Your task to perform on an android device: change the clock display to analog Image 0: 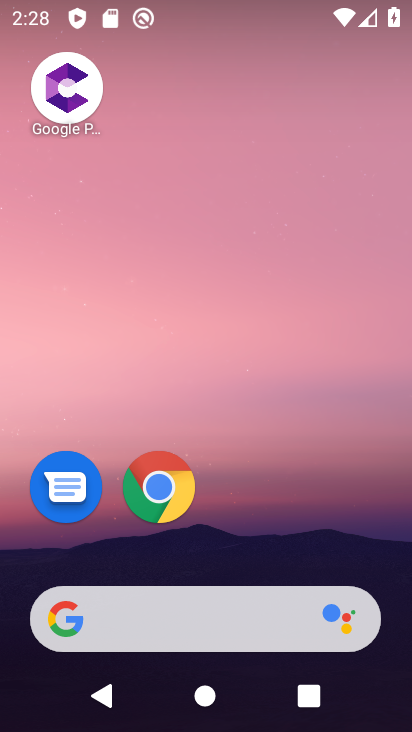
Step 0: drag from (386, 562) to (293, 145)
Your task to perform on an android device: change the clock display to analog Image 1: 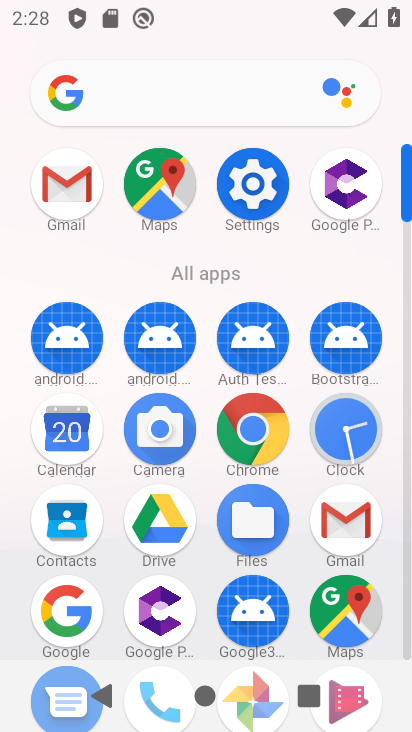
Step 1: click (355, 445)
Your task to perform on an android device: change the clock display to analog Image 2: 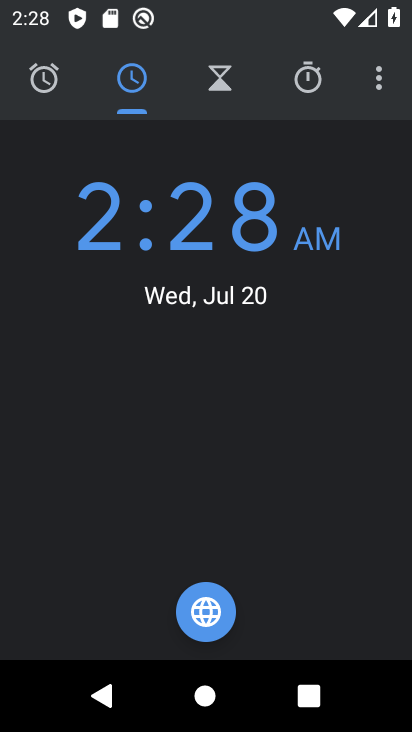
Step 2: click (378, 93)
Your task to perform on an android device: change the clock display to analog Image 3: 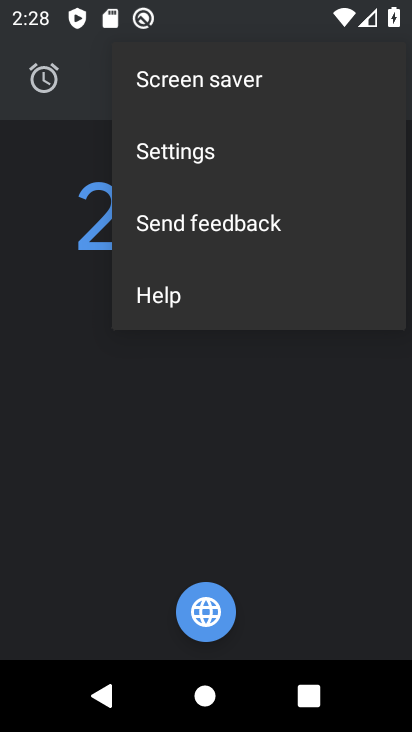
Step 3: click (261, 150)
Your task to perform on an android device: change the clock display to analog Image 4: 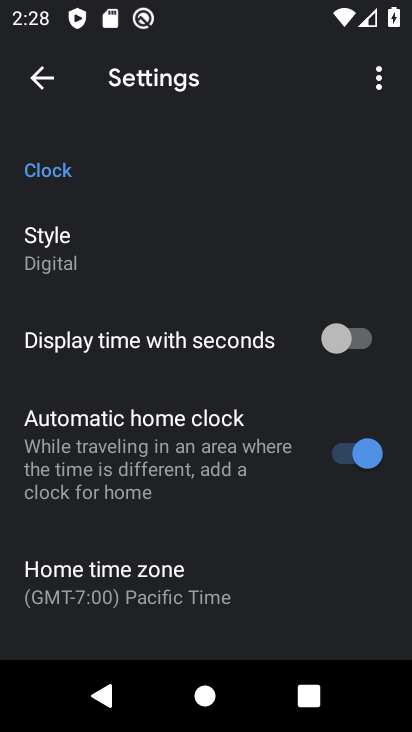
Step 4: click (178, 266)
Your task to perform on an android device: change the clock display to analog Image 5: 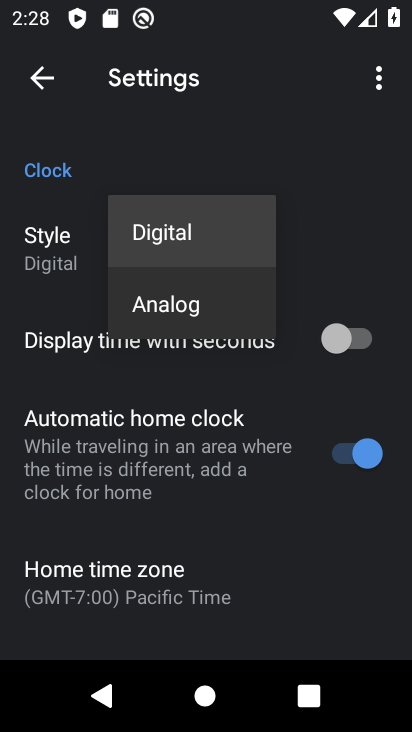
Step 5: click (191, 292)
Your task to perform on an android device: change the clock display to analog Image 6: 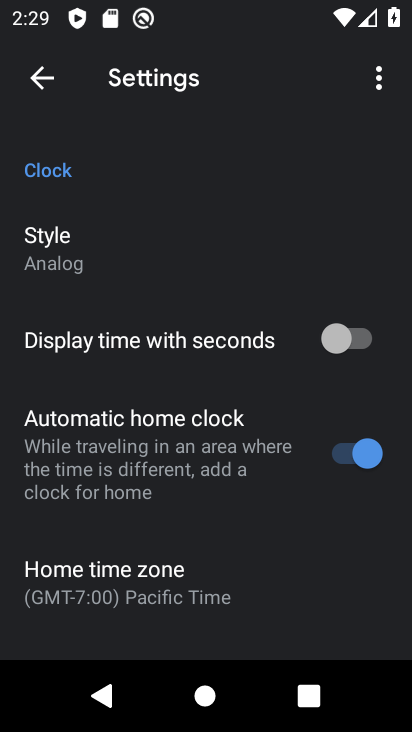
Step 6: task complete